Your task to perform on an android device: Turn on the flashlight Image 0: 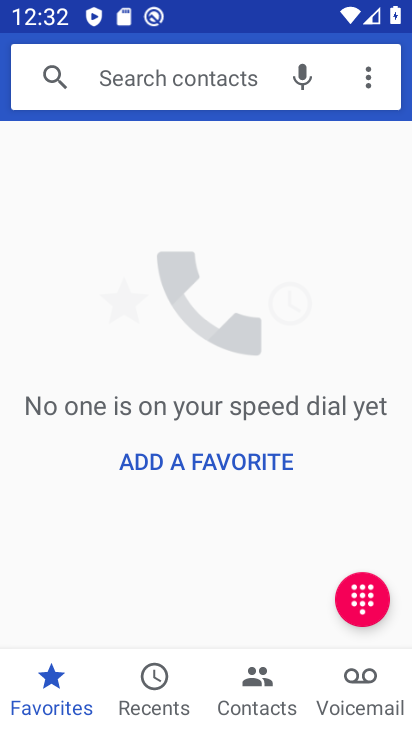
Step 0: press home button
Your task to perform on an android device: Turn on the flashlight Image 1: 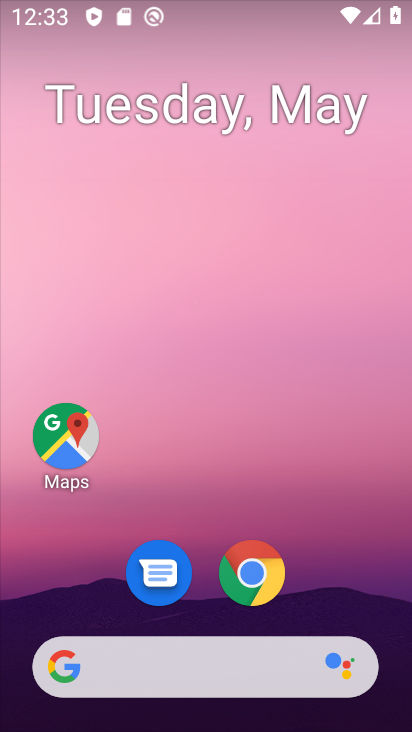
Step 1: drag from (368, 439) to (383, 110)
Your task to perform on an android device: Turn on the flashlight Image 2: 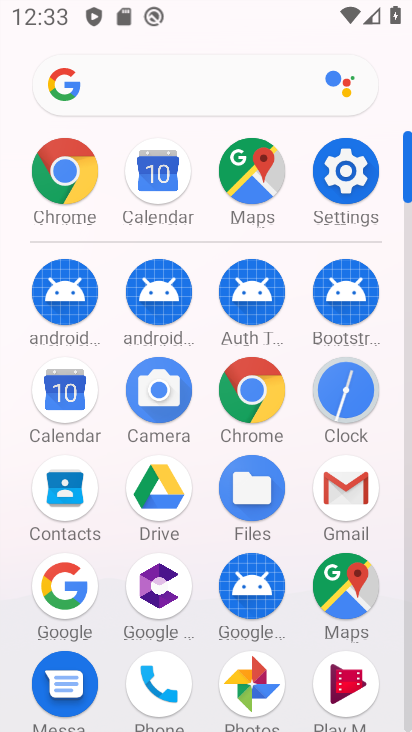
Step 2: click (337, 168)
Your task to perform on an android device: Turn on the flashlight Image 3: 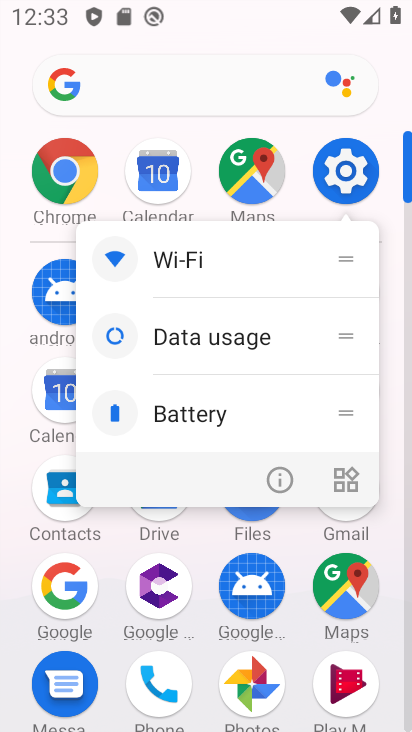
Step 3: click (337, 168)
Your task to perform on an android device: Turn on the flashlight Image 4: 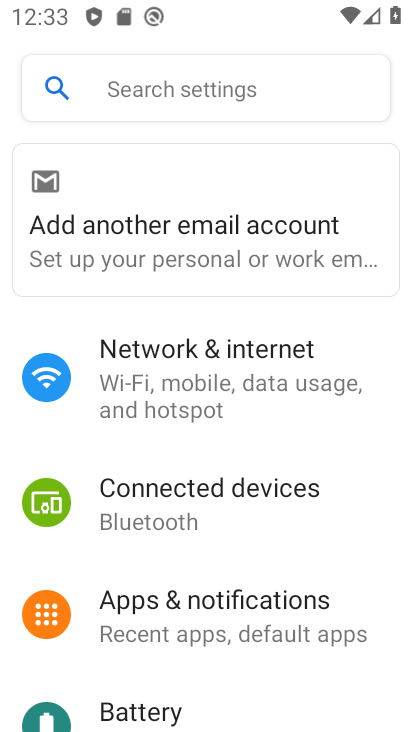
Step 4: task complete